Your task to perform on an android device: toggle airplane mode Image 0: 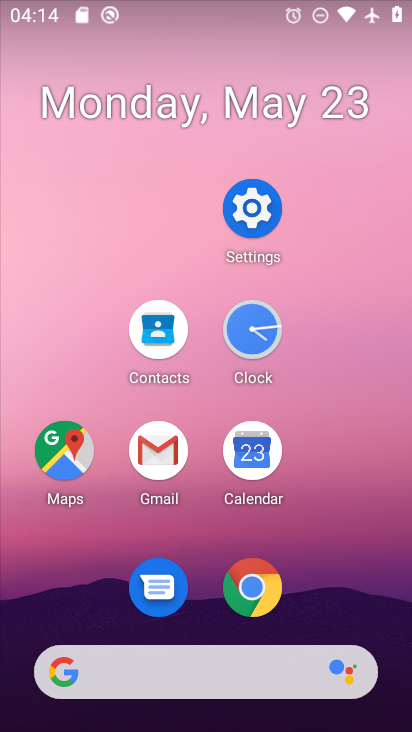
Step 0: click (278, 221)
Your task to perform on an android device: toggle airplane mode Image 1: 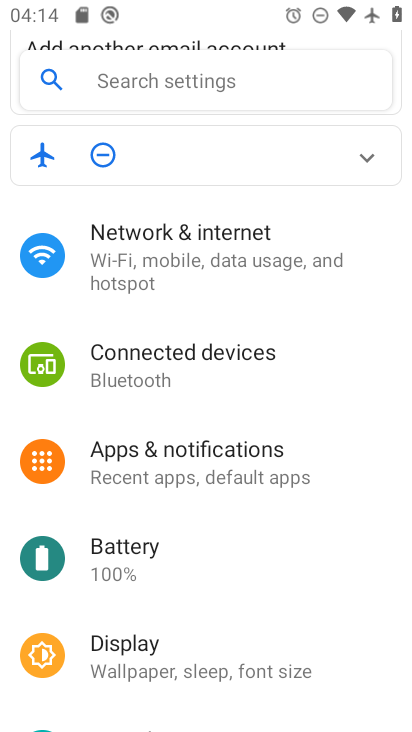
Step 1: drag from (280, 207) to (254, 269)
Your task to perform on an android device: toggle airplane mode Image 2: 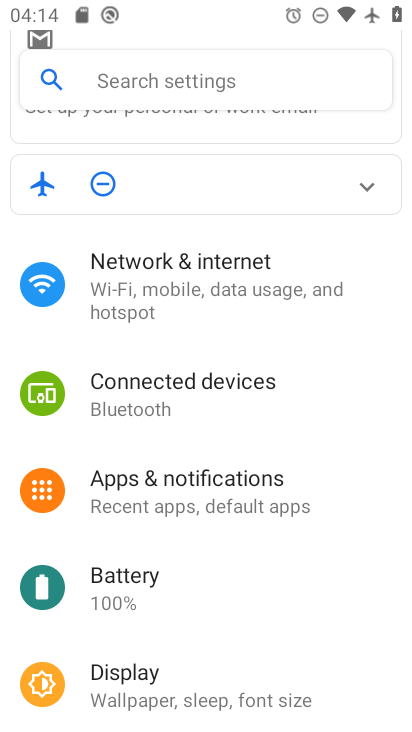
Step 2: click (358, 190)
Your task to perform on an android device: toggle airplane mode Image 3: 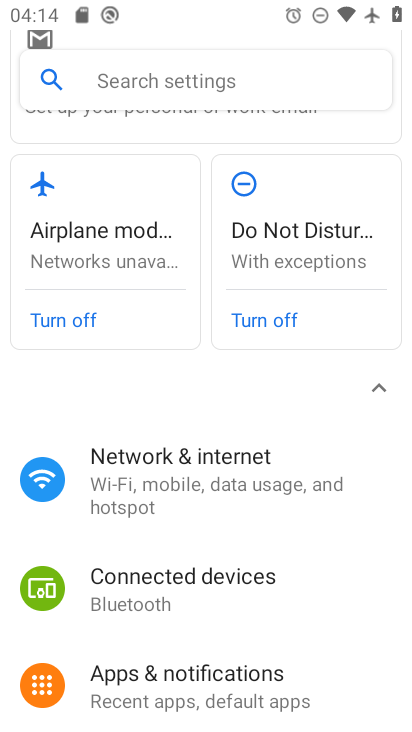
Step 3: click (193, 481)
Your task to perform on an android device: toggle airplane mode Image 4: 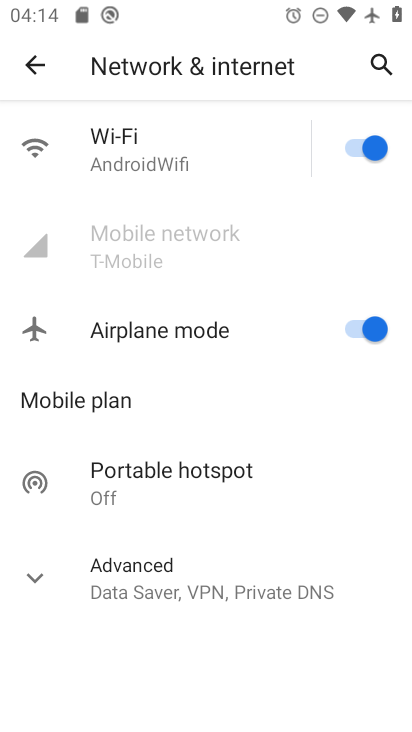
Step 4: click (368, 324)
Your task to perform on an android device: toggle airplane mode Image 5: 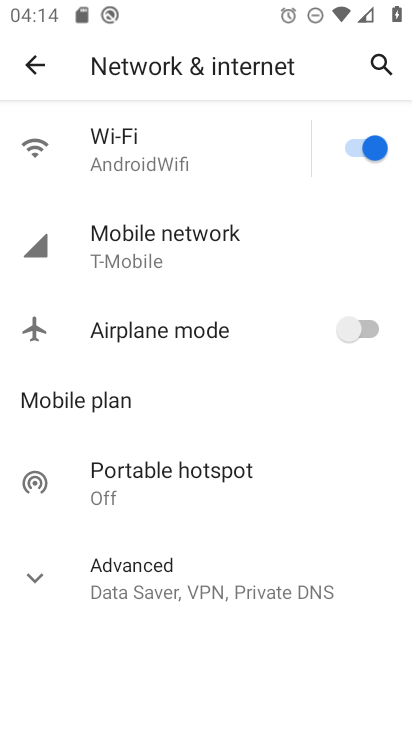
Step 5: task complete